Your task to perform on an android device: turn pop-ups on in chrome Image 0: 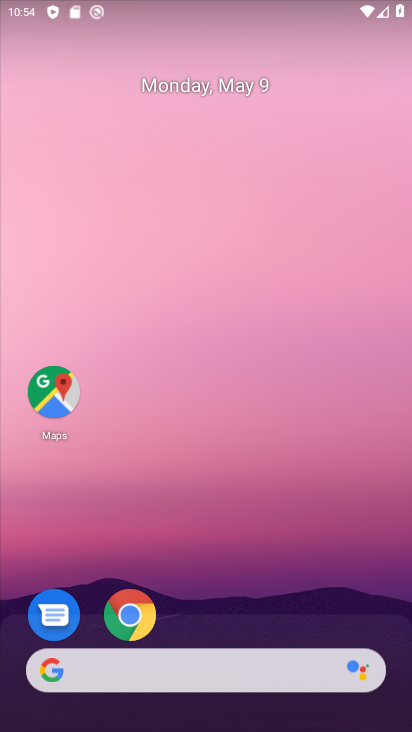
Step 0: click (139, 621)
Your task to perform on an android device: turn pop-ups on in chrome Image 1: 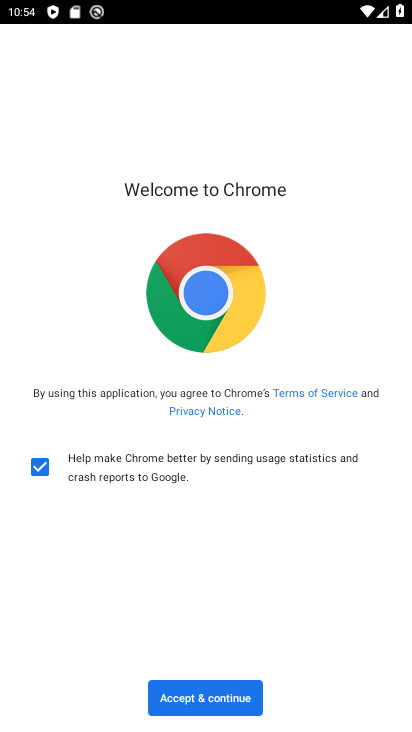
Step 1: click (198, 699)
Your task to perform on an android device: turn pop-ups on in chrome Image 2: 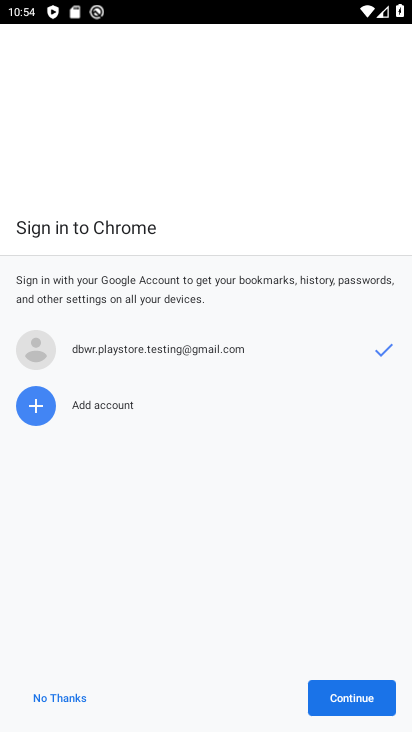
Step 2: click (359, 692)
Your task to perform on an android device: turn pop-ups on in chrome Image 3: 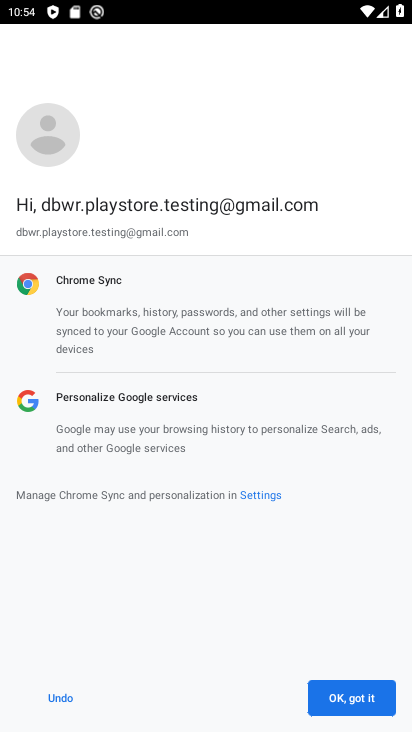
Step 3: click (339, 691)
Your task to perform on an android device: turn pop-ups on in chrome Image 4: 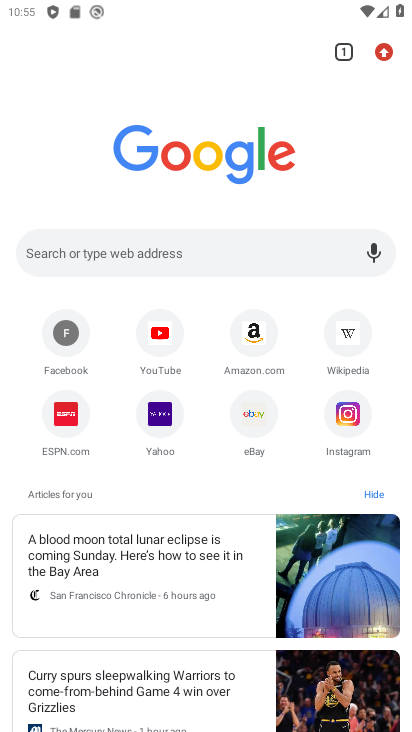
Step 4: click (385, 54)
Your task to perform on an android device: turn pop-ups on in chrome Image 5: 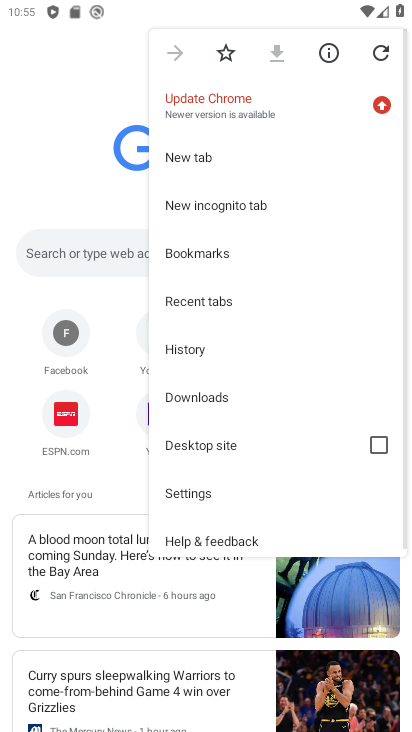
Step 5: click (241, 486)
Your task to perform on an android device: turn pop-ups on in chrome Image 6: 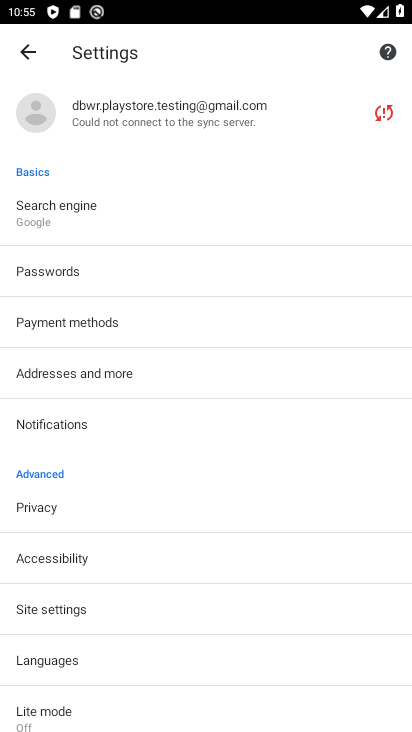
Step 6: click (156, 610)
Your task to perform on an android device: turn pop-ups on in chrome Image 7: 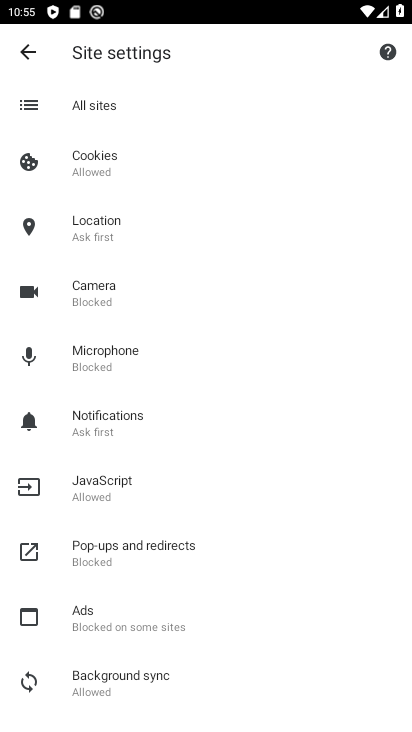
Step 7: click (136, 556)
Your task to perform on an android device: turn pop-ups on in chrome Image 8: 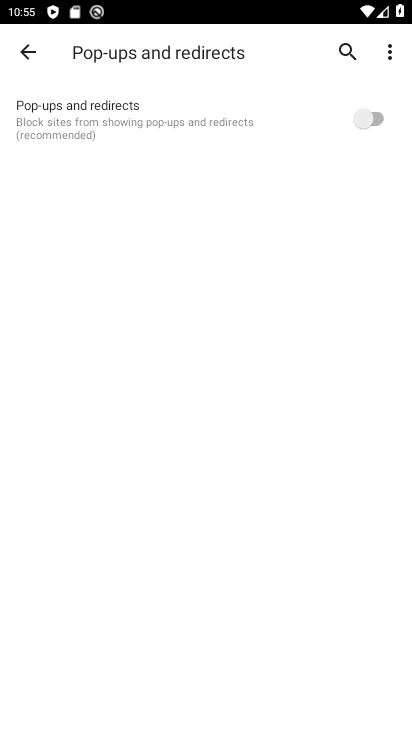
Step 8: click (368, 119)
Your task to perform on an android device: turn pop-ups on in chrome Image 9: 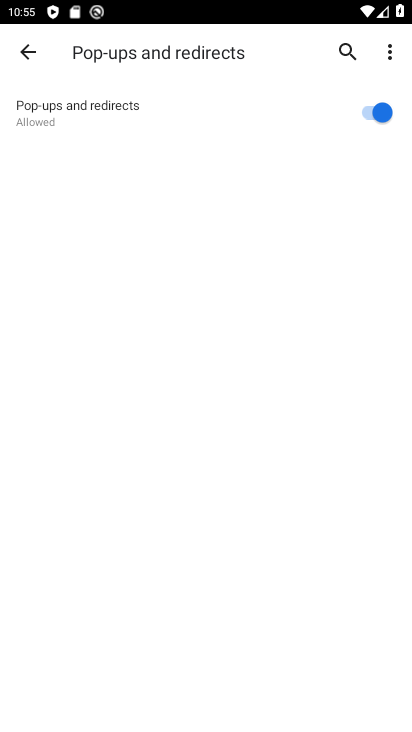
Step 9: task complete